Your task to perform on an android device: Search for Mexican restaurants on Maps Image 0: 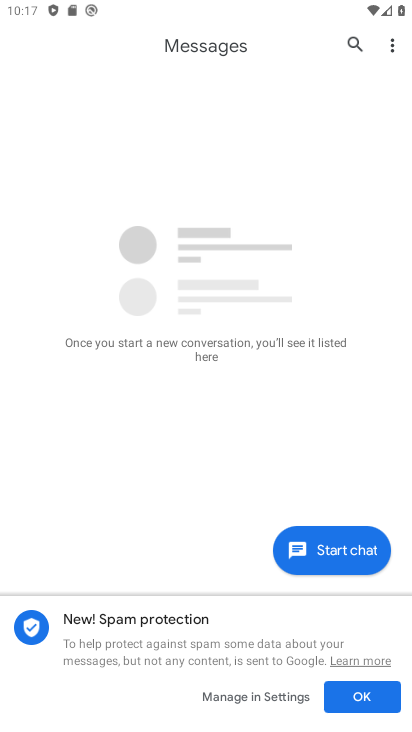
Step 0: press home button
Your task to perform on an android device: Search for Mexican restaurants on Maps Image 1: 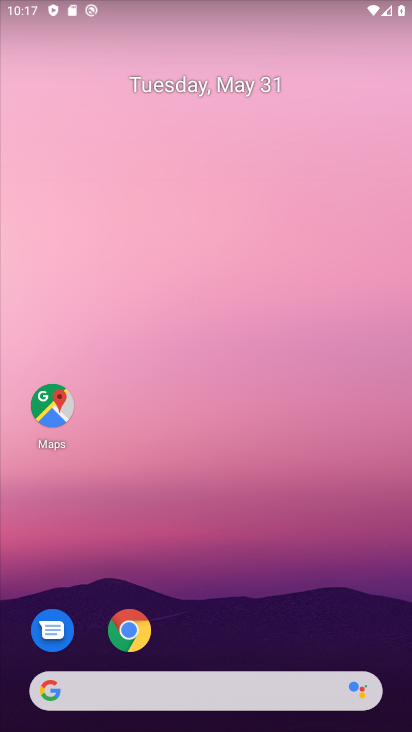
Step 1: click (43, 405)
Your task to perform on an android device: Search for Mexican restaurants on Maps Image 2: 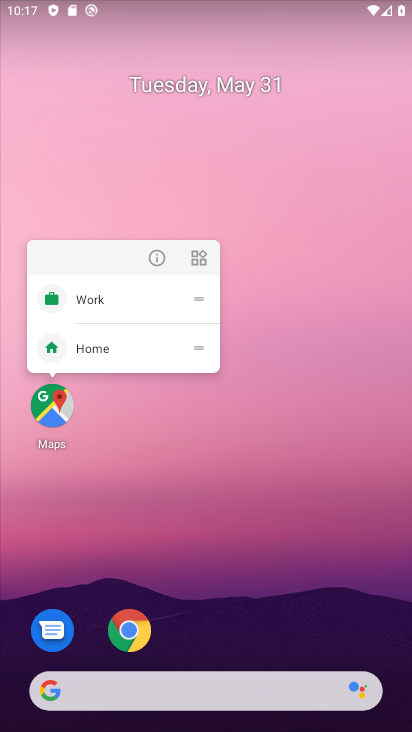
Step 2: click (40, 410)
Your task to perform on an android device: Search for Mexican restaurants on Maps Image 3: 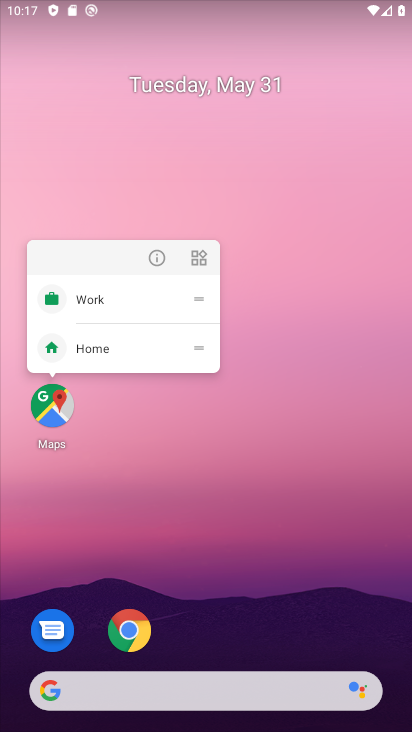
Step 3: click (42, 417)
Your task to perform on an android device: Search for Mexican restaurants on Maps Image 4: 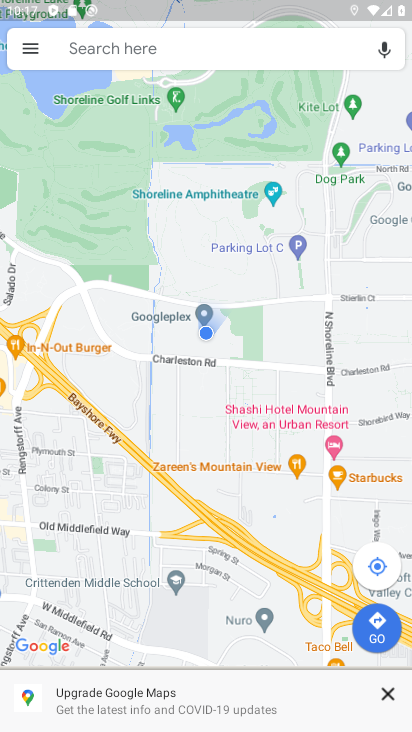
Step 4: click (167, 46)
Your task to perform on an android device: Search for Mexican restaurants on Maps Image 5: 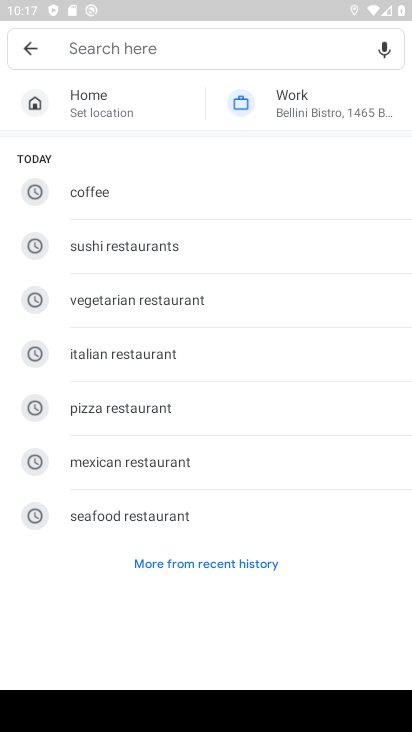
Step 5: click (99, 461)
Your task to perform on an android device: Search for Mexican restaurants on Maps Image 6: 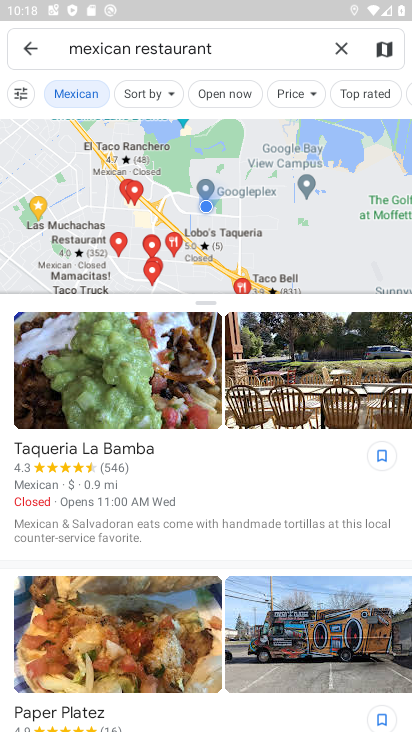
Step 6: task complete